Your task to perform on an android device: delete browsing data in the chrome app Image 0: 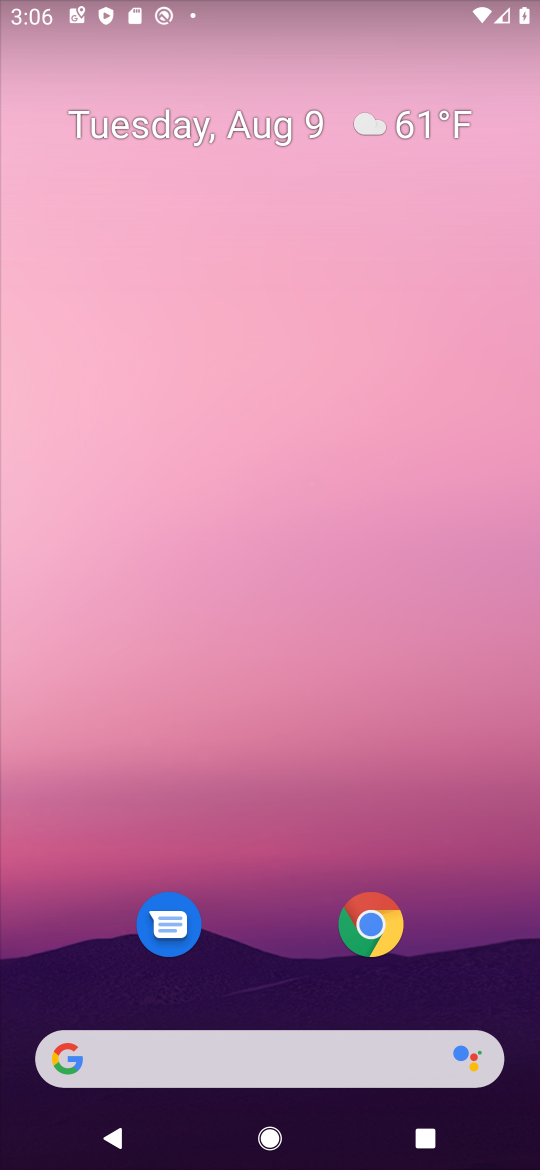
Step 0: click (375, 916)
Your task to perform on an android device: delete browsing data in the chrome app Image 1: 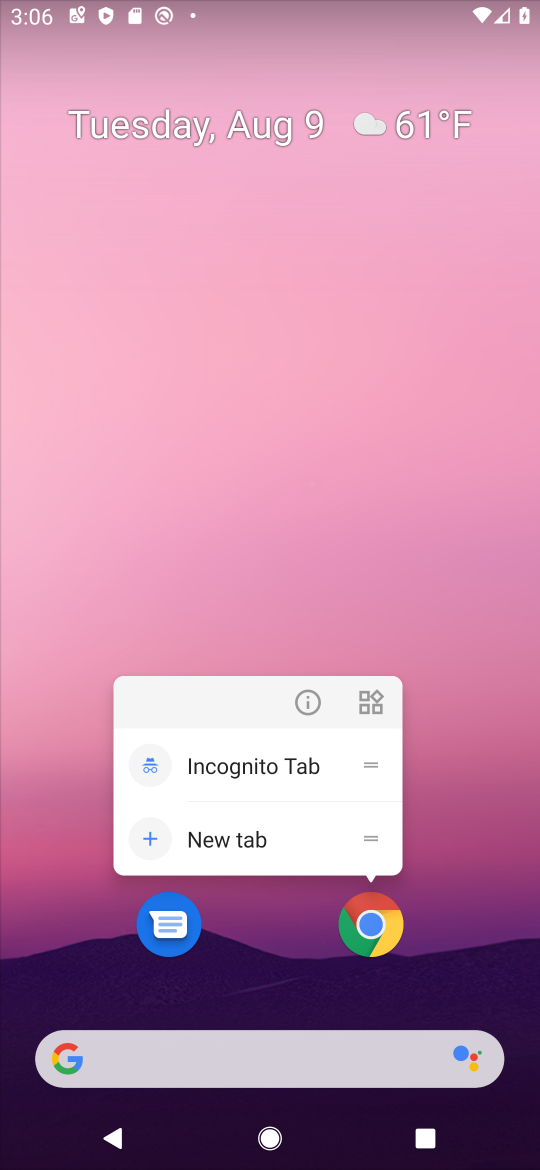
Step 1: click (375, 916)
Your task to perform on an android device: delete browsing data in the chrome app Image 2: 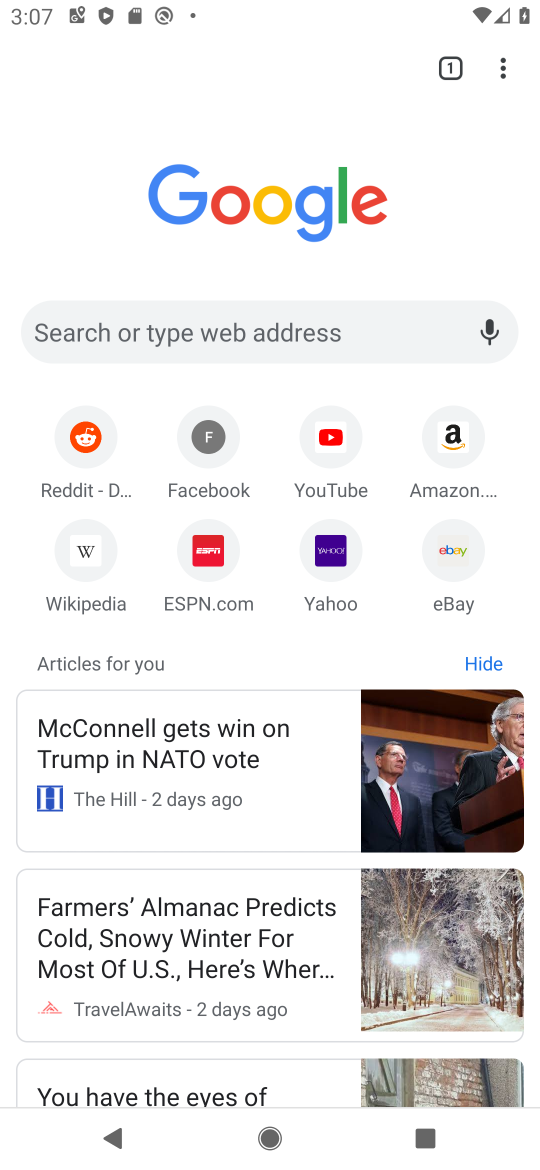
Step 2: click (496, 70)
Your task to perform on an android device: delete browsing data in the chrome app Image 3: 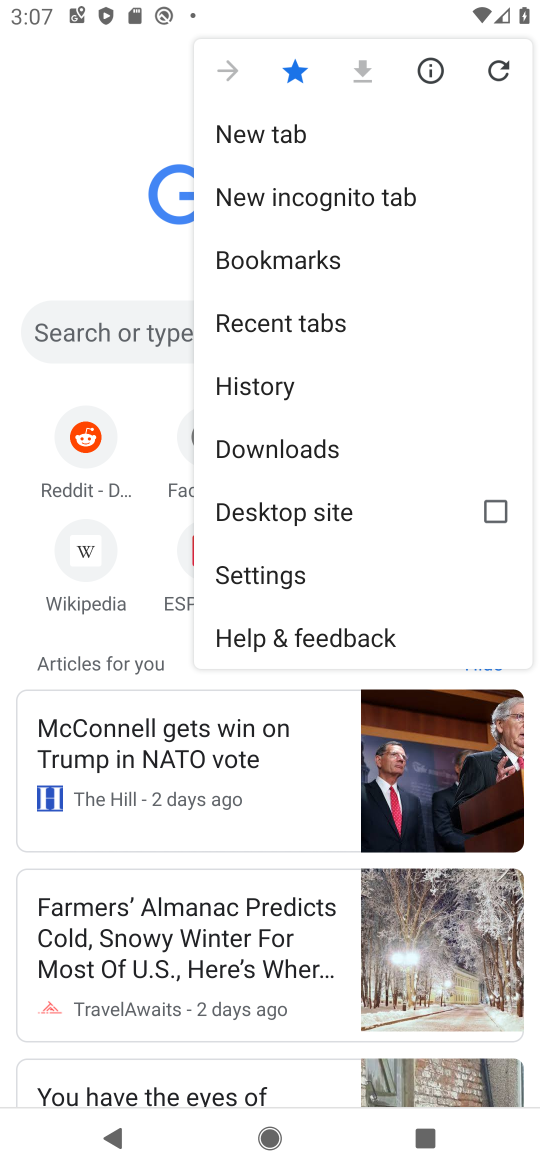
Step 3: click (274, 376)
Your task to perform on an android device: delete browsing data in the chrome app Image 4: 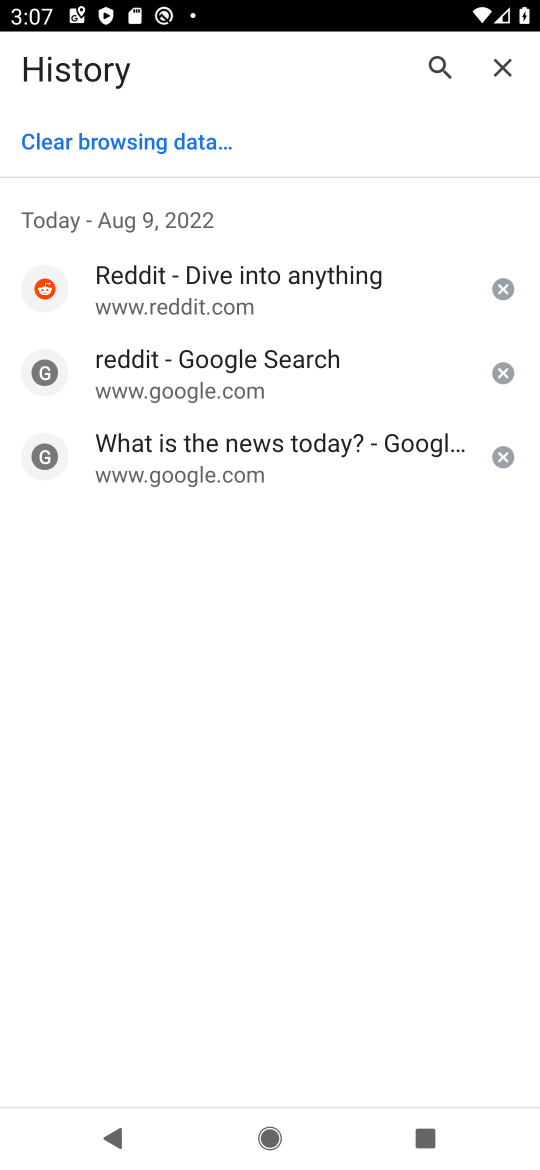
Step 4: click (150, 137)
Your task to perform on an android device: delete browsing data in the chrome app Image 5: 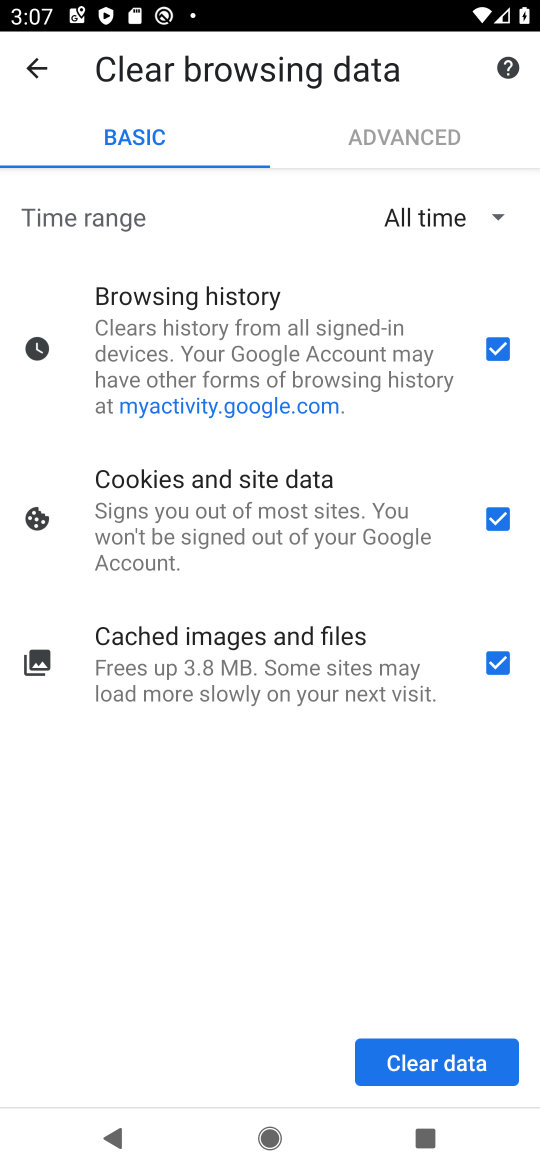
Step 5: click (425, 1060)
Your task to perform on an android device: delete browsing data in the chrome app Image 6: 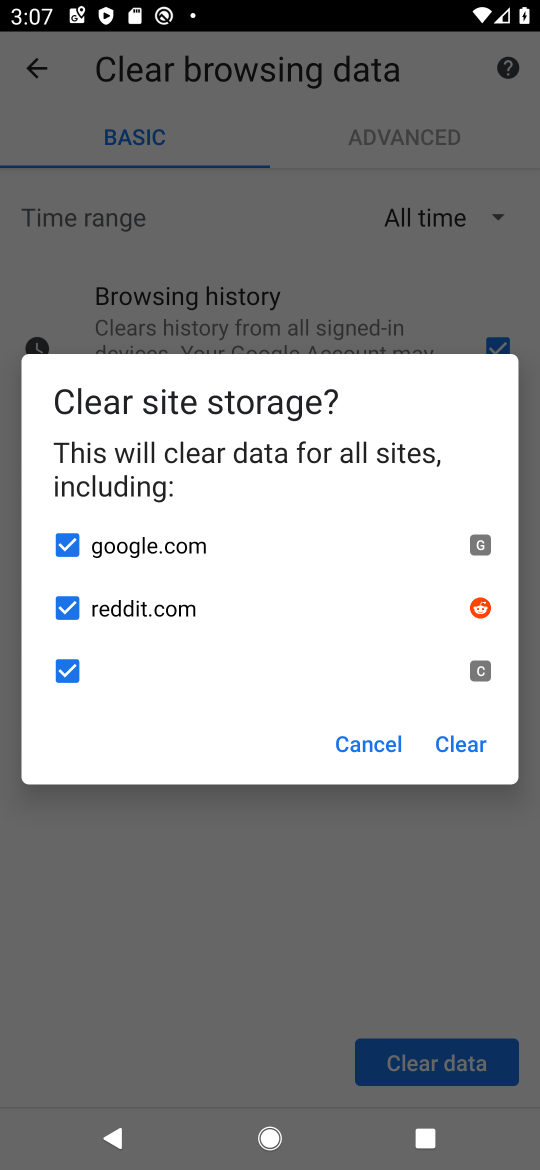
Step 6: click (473, 740)
Your task to perform on an android device: delete browsing data in the chrome app Image 7: 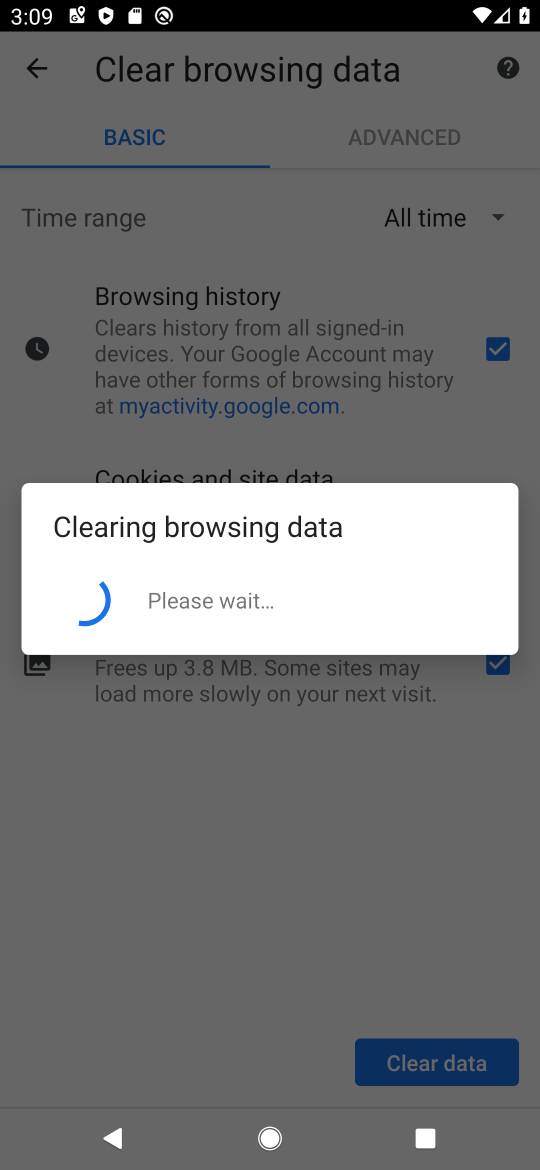
Step 7: task complete